Your task to perform on an android device: Open Wikipedia Image 0: 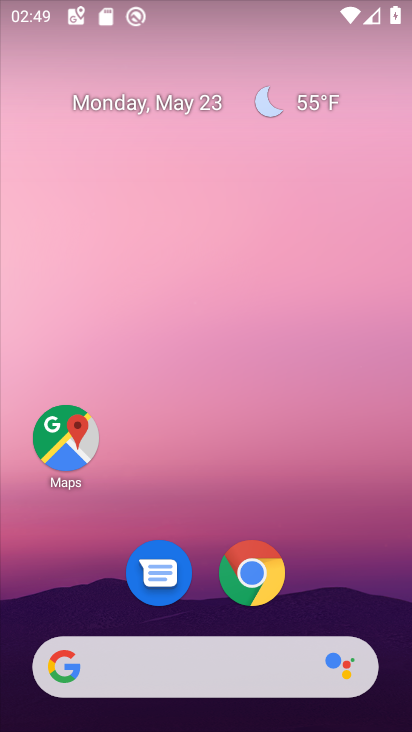
Step 0: click (259, 572)
Your task to perform on an android device: Open Wikipedia Image 1: 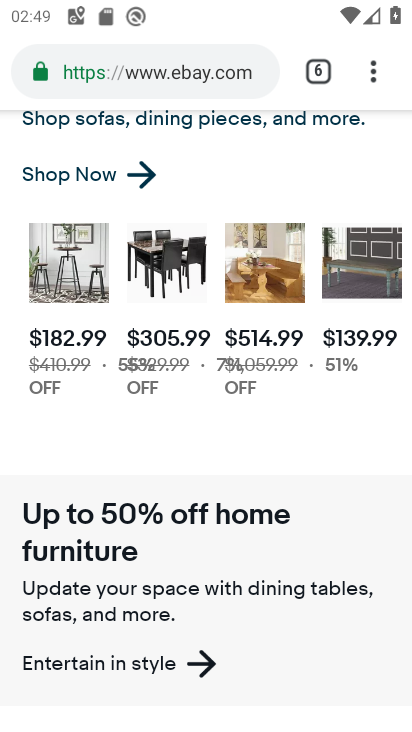
Step 1: click (324, 73)
Your task to perform on an android device: Open Wikipedia Image 2: 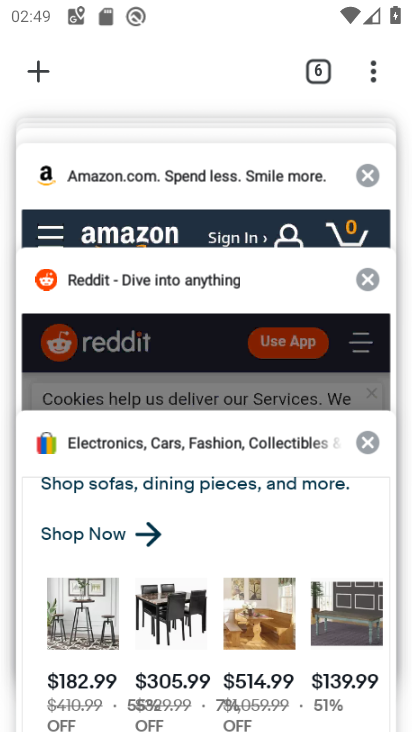
Step 2: drag from (340, 179) to (327, 565)
Your task to perform on an android device: Open Wikipedia Image 3: 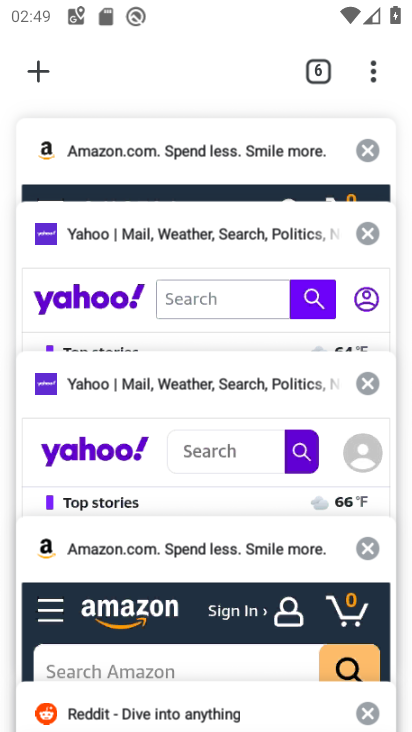
Step 3: drag from (215, 107) to (228, 466)
Your task to perform on an android device: Open Wikipedia Image 4: 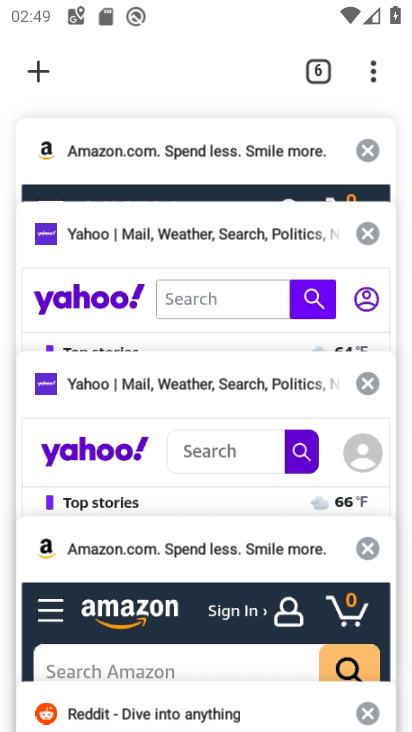
Step 4: click (39, 59)
Your task to perform on an android device: Open Wikipedia Image 5: 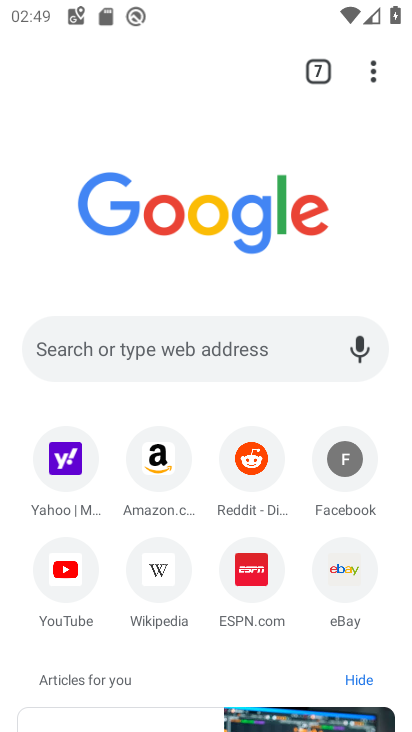
Step 5: click (152, 580)
Your task to perform on an android device: Open Wikipedia Image 6: 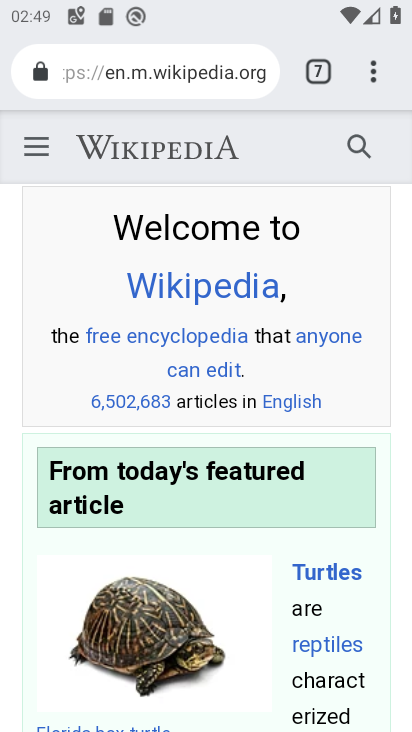
Step 6: task complete